Your task to perform on an android device: Open accessibility settings Image 0: 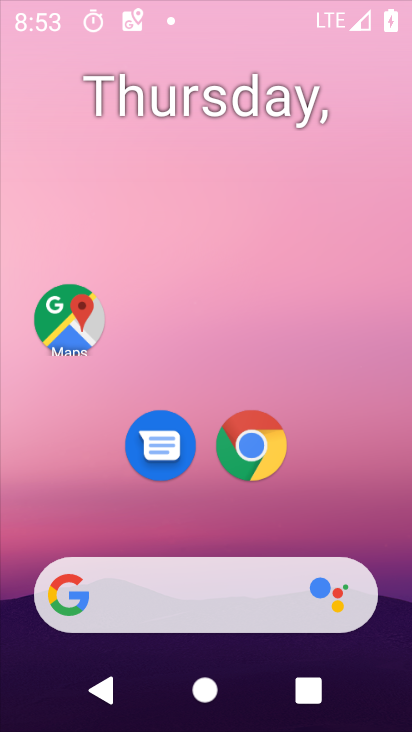
Step 0: click (251, 154)
Your task to perform on an android device: Open accessibility settings Image 1: 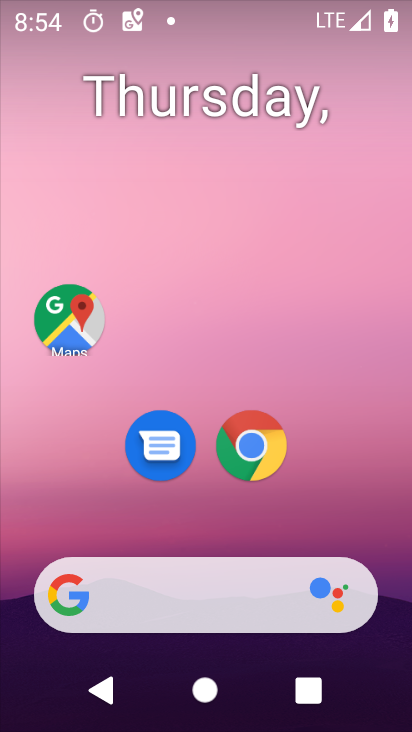
Step 1: drag from (185, 517) to (213, 120)
Your task to perform on an android device: Open accessibility settings Image 2: 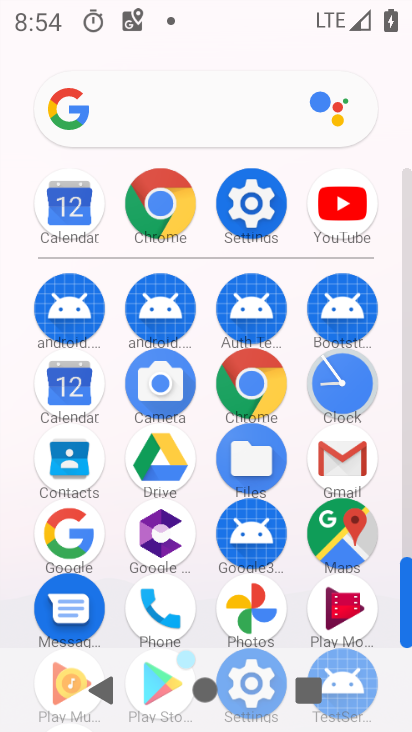
Step 2: click (258, 199)
Your task to perform on an android device: Open accessibility settings Image 3: 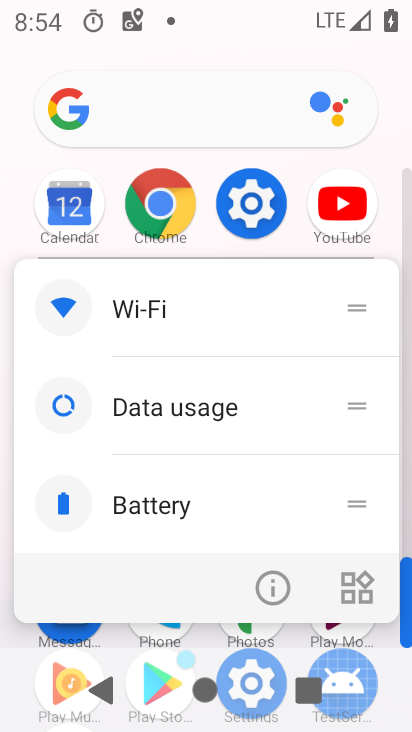
Step 3: click (275, 568)
Your task to perform on an android device: Open accessibility settings Image 4: 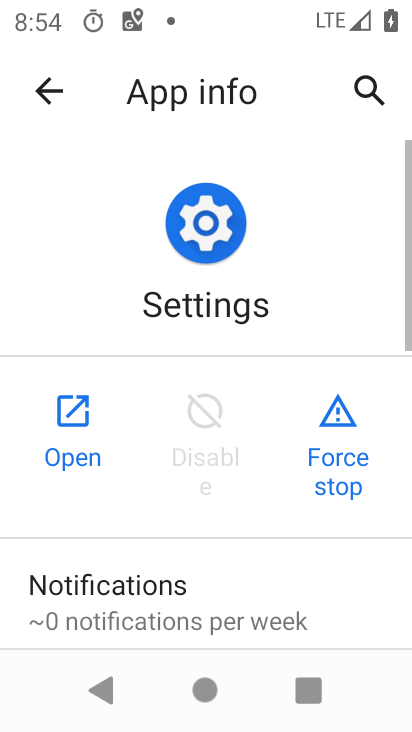
Step 4: click (74, 415)
Your task to perform on an android device: Open accessibility settings Image 5: 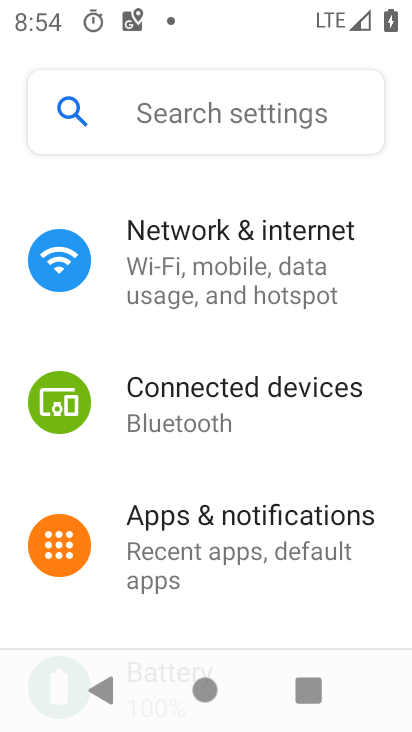
Step 5: drag from (260, 477) to (269, 121)
Your task to perform on an android device: Open accessibility settings Image 6: 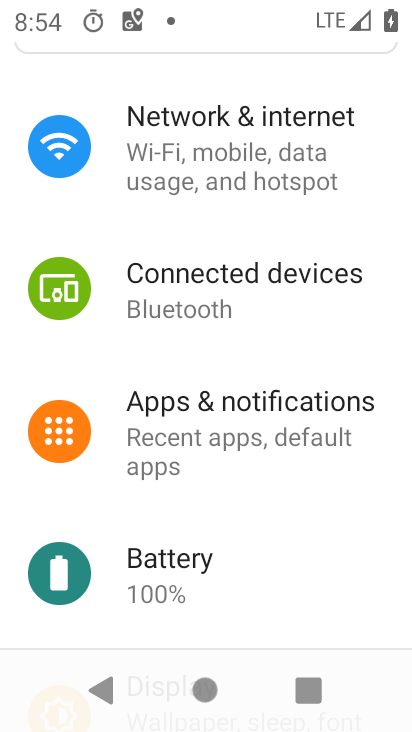
Step 6: drag from (213, 536) to (297, 115)
Your task to perform on an android device: Open accessibility settings Image 7: 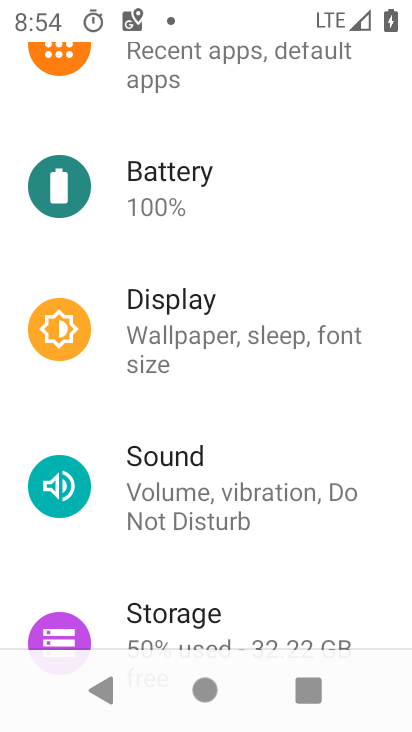
Step 7: drag from (209, 559) to (247, 82)
Your task to perform on an android device: Open accessibility settings Image 8: 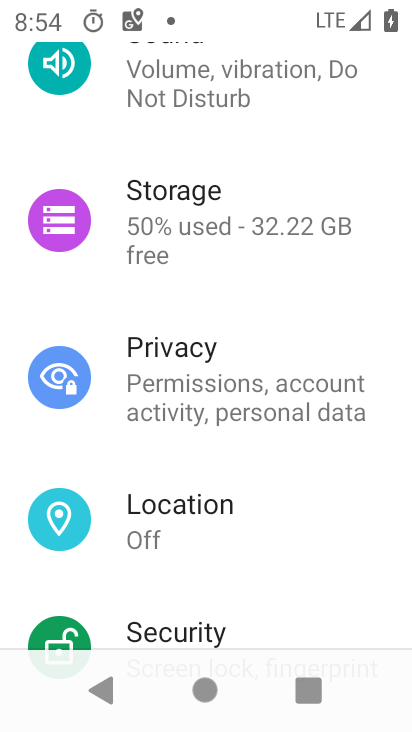
Step 8: drag from (225, 567) to (211, 317)
Your task to perform on an android device: Open accessibility settings Image 9: 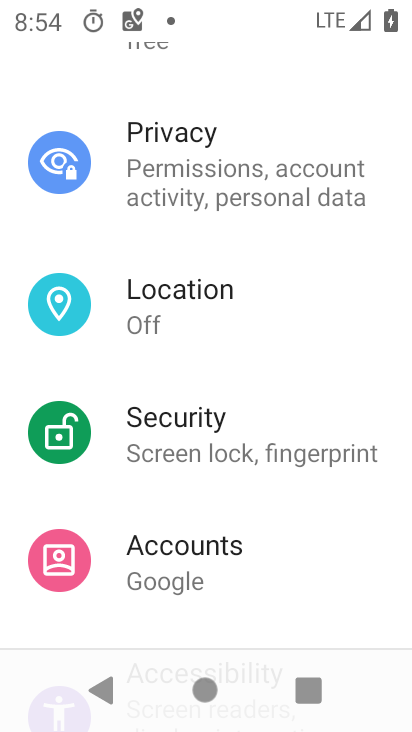
Step 9: drag from (232, 566) to (236, 259)
Your task to perform on an android device: Open accessibility settings Image 10: 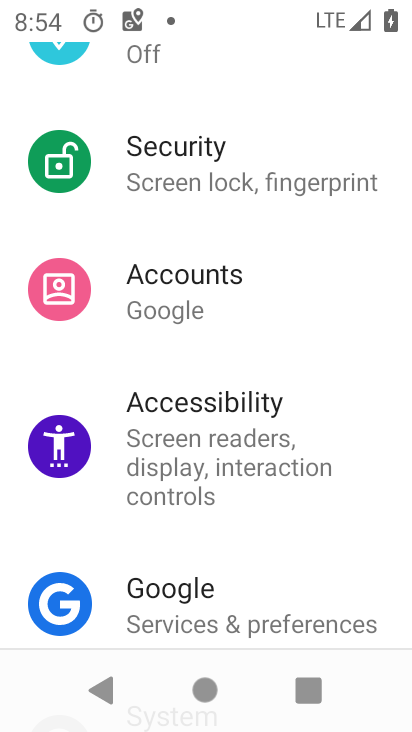
Step 10: drag from (223, 561) to (240, 228)
Your task to perform on an android device: Open accessibility settings Image 11: 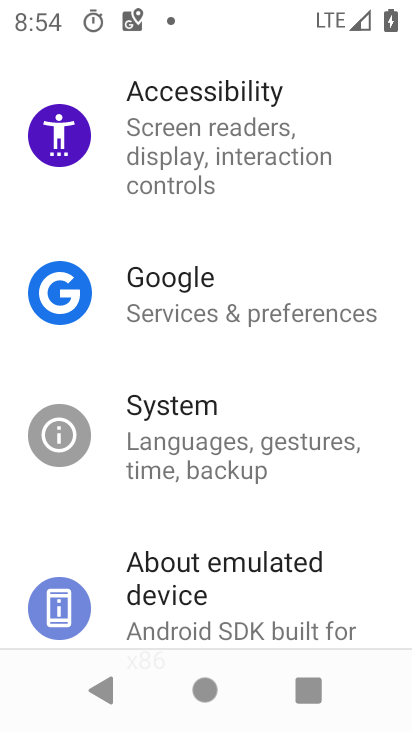
Step 11: click (226, 130)
Your task to perform on an android device: Open accessibility settings Image 12: 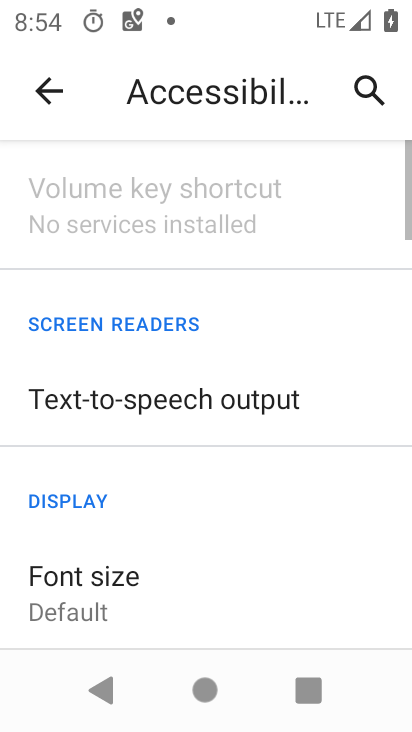
Step 12: task complete